Your task to perform on an android device: turn on location history Image 0: 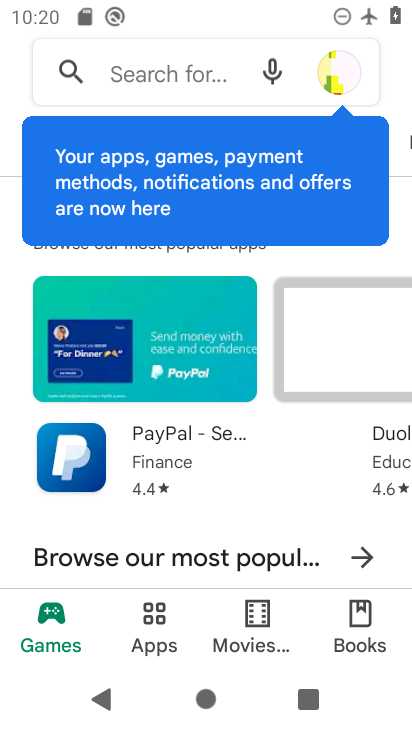
Step 0: press home button
Your task to perform on an android device: turn on location history Image 1: 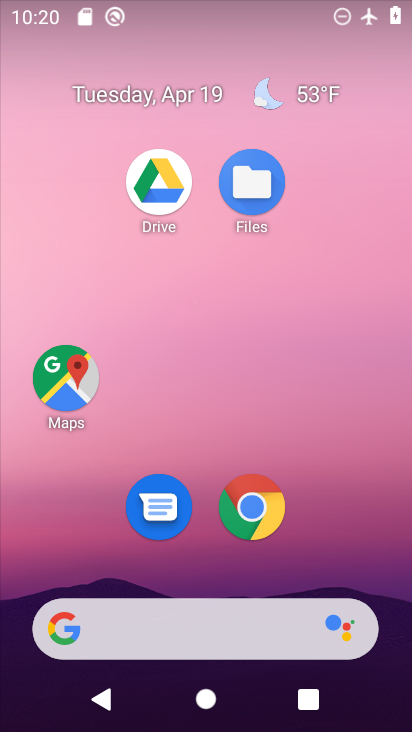
Step 1: drag from (343, 554) to (330, 84)
Your task to perform on an android device: turn on location history Image 2: 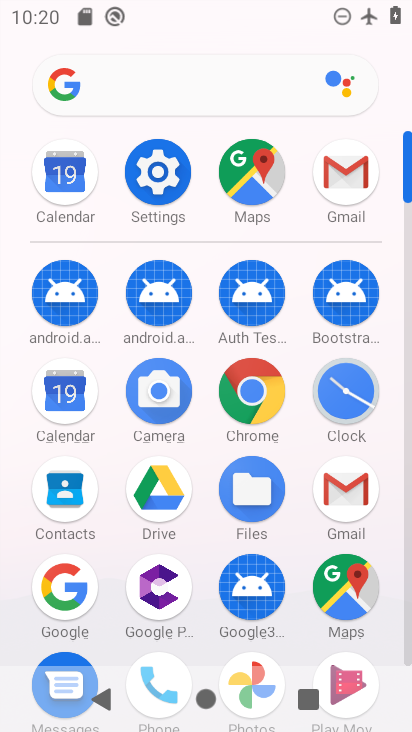
Step 2: click (157, 184)
Your task to perform on an android device: turn on location history Image 3: 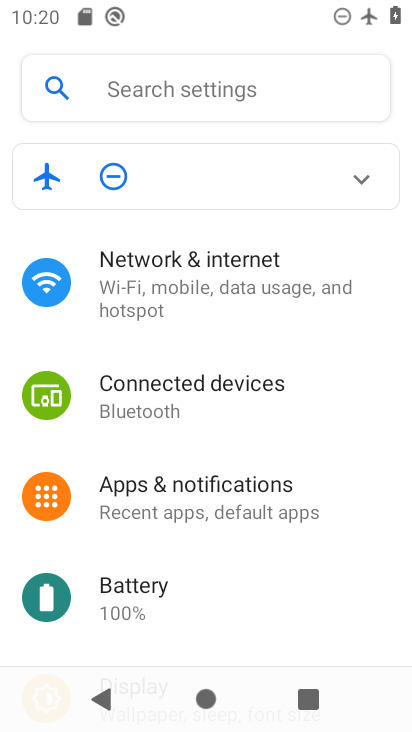
Step 3: drag from (247, 548) to (252, 172)
Your task to perform on an android device: turn on location history Image 4: 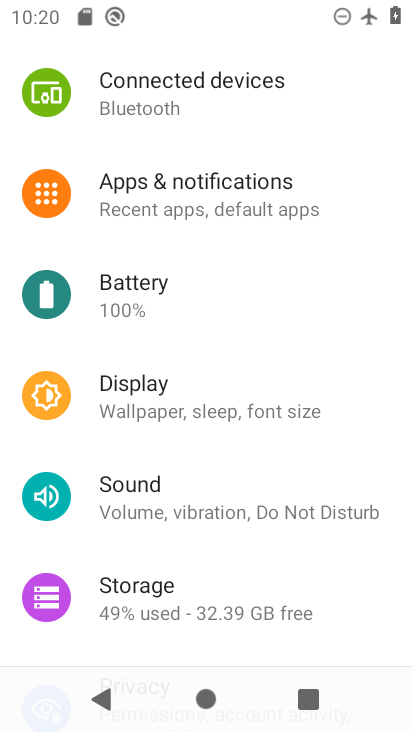
Step 4: drag from (286, 541) to (259, 170)
Your task to perform on an android device: turn on location history Image 5: 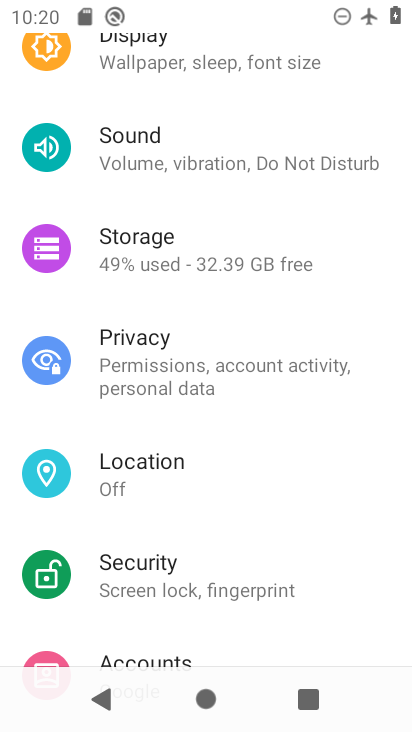
Step 5: click (216, 483)
Your task to perform on an android device: turn on location history Image 6: 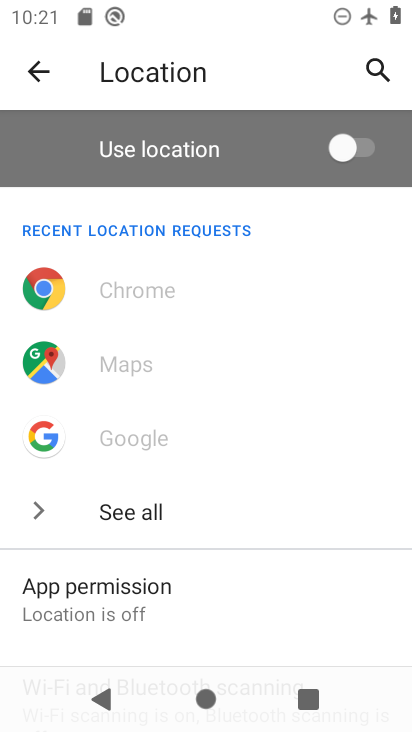
Step 6: click (355, 149)
Your task to perform on an android device: turn on location history Image 7: 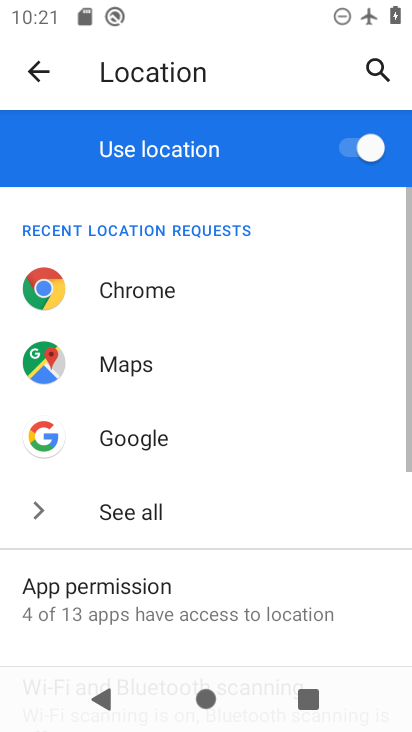
Step 7: task complete